Your task to perform on an android device: toggle pop-ups in chrome Image 0: 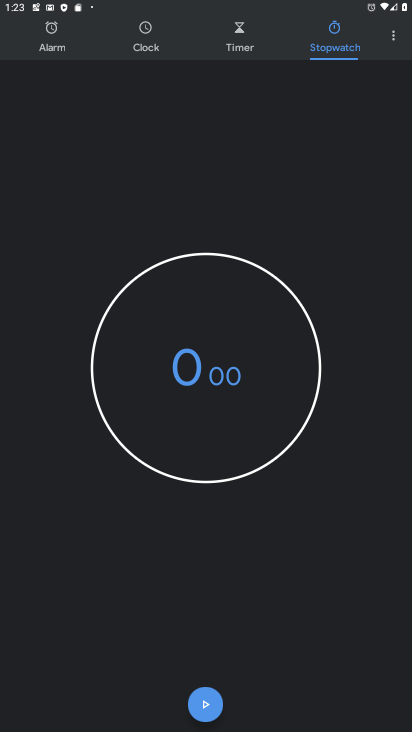
Step 0: press home button
Your task to perform on an android device: toggle pop-ups in chrome Image 1: 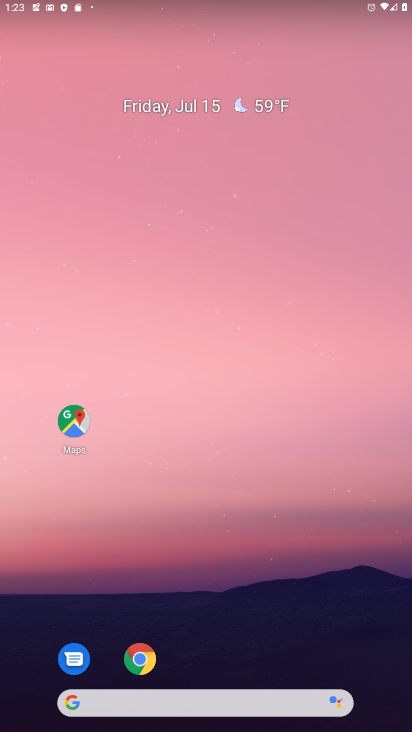
Step 1: click (138, 657)
Your task to perform on an android device: toggle pop-ups in chrome Image 2: 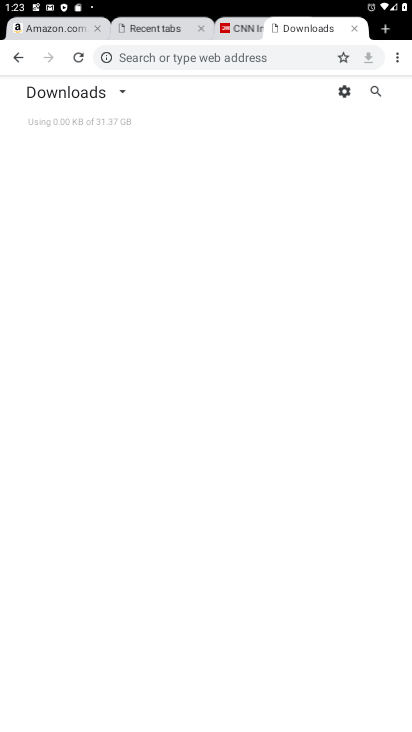
Step 2: click (398, 55)
Your task to perform on an android device: toggle pop-ups in chrome Image 3: 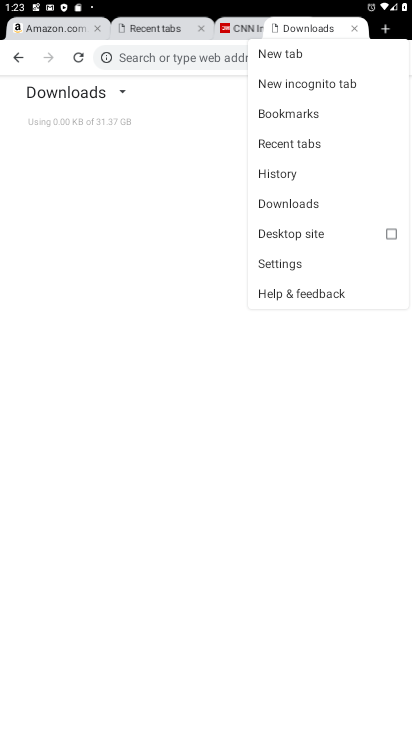
Step 3: click (282, 263)
Your task to perform on an android device: toggle pop-ups in chrome Image 4: 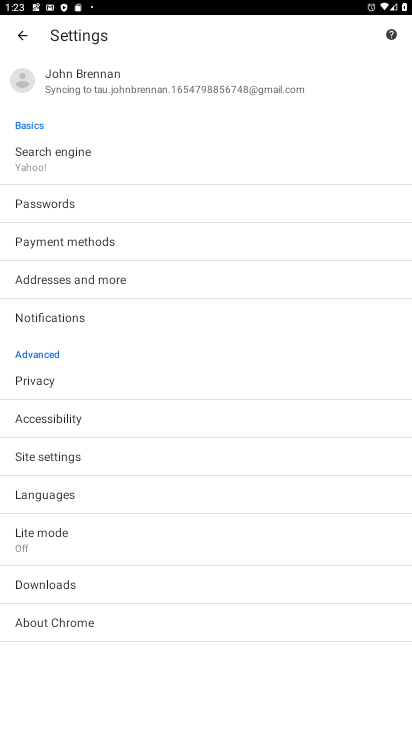
Step 4: click (63, 457)
Your task to perform on an android device: toggle pop-ups in chrome Image 5: 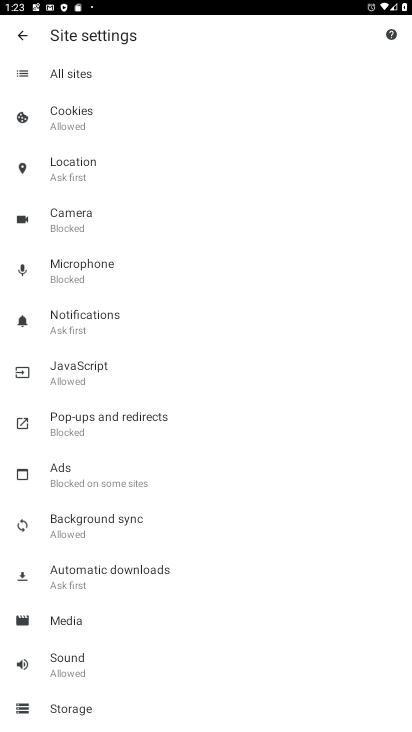
Step 5: click (89, 420)
Your task to perform on an android device: toggle pop-ups in chrome Image 6: 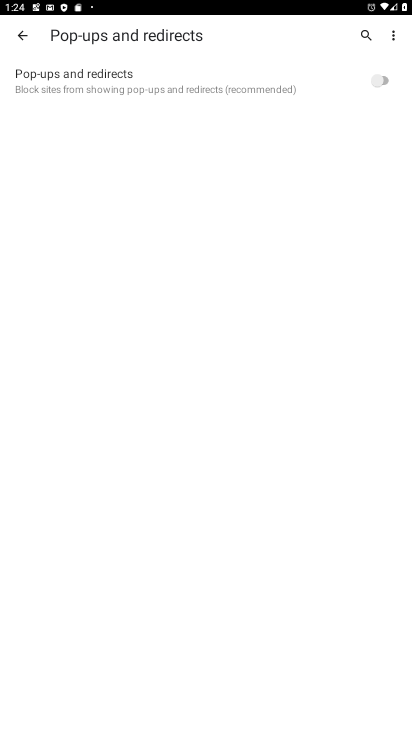
Step 6: click (390, 81)
Your task to perform on an android device: toggle pop-ups in chrome Image 7: 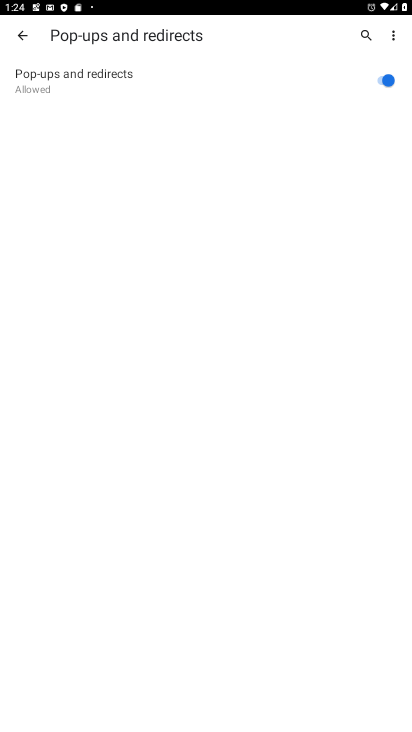
Step 7: task complete